Your task to perform on an android device: manage bookmarks in the chrome app Image 0: 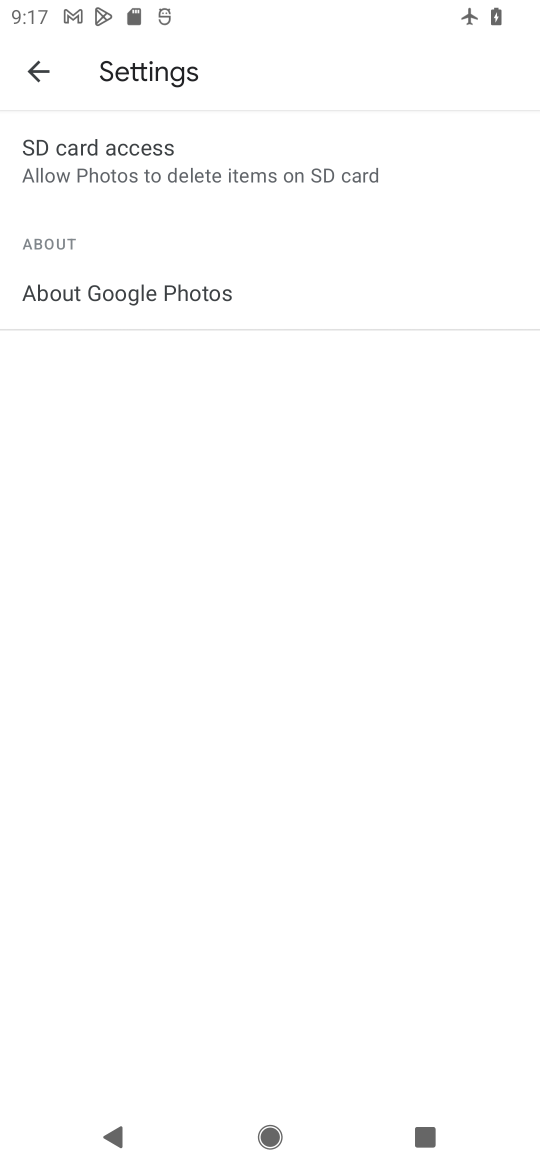
Step 0: press home button
Your task to perform on an android device: manage bookmarks in the chrome app Image 1: 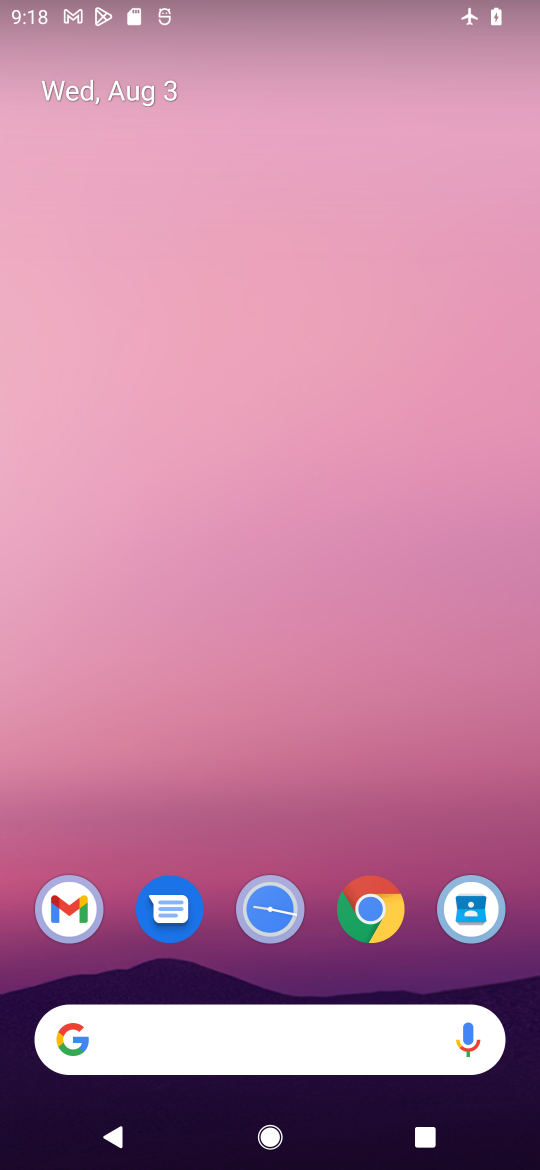
Step 1: drag from (305, 807) to (348, 389)
Your task to perform on an android device: manage bookmarks in the chrome app Image 2: 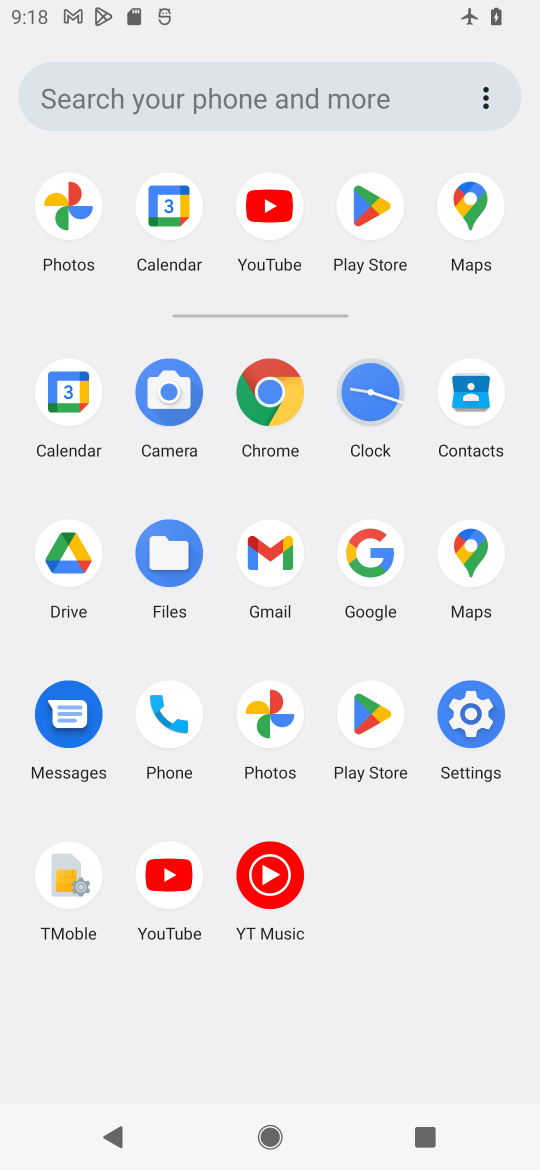
Step 2: click (282, 405)
Your task to perform on an android device: manage bookmarks in the chrome app Image 3: 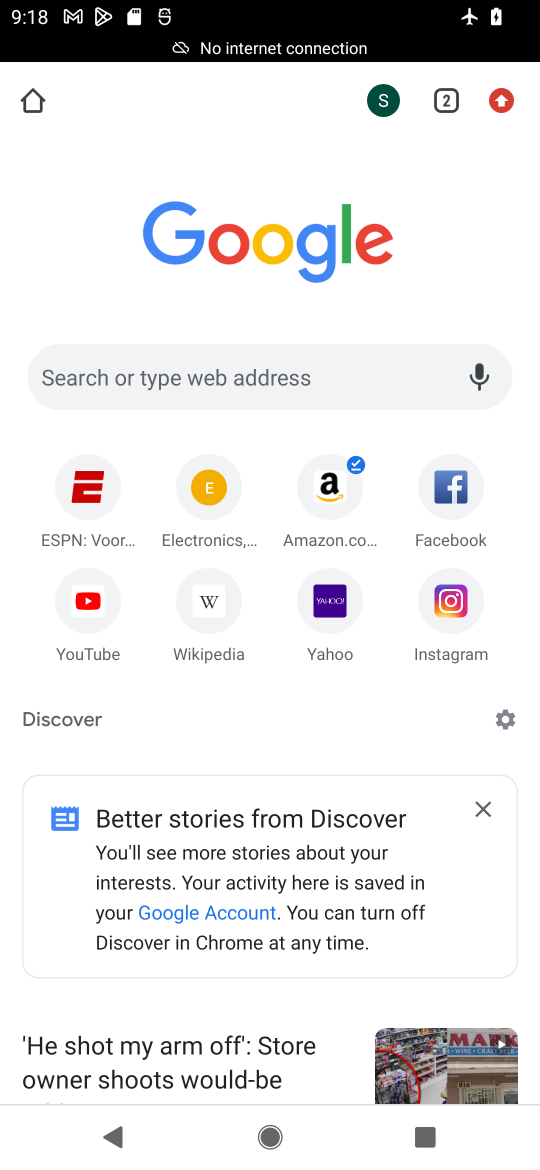
Step 3: click (503, 101)
Your task to perform on an android device: manage bookmarks in the chrome app Image 4: 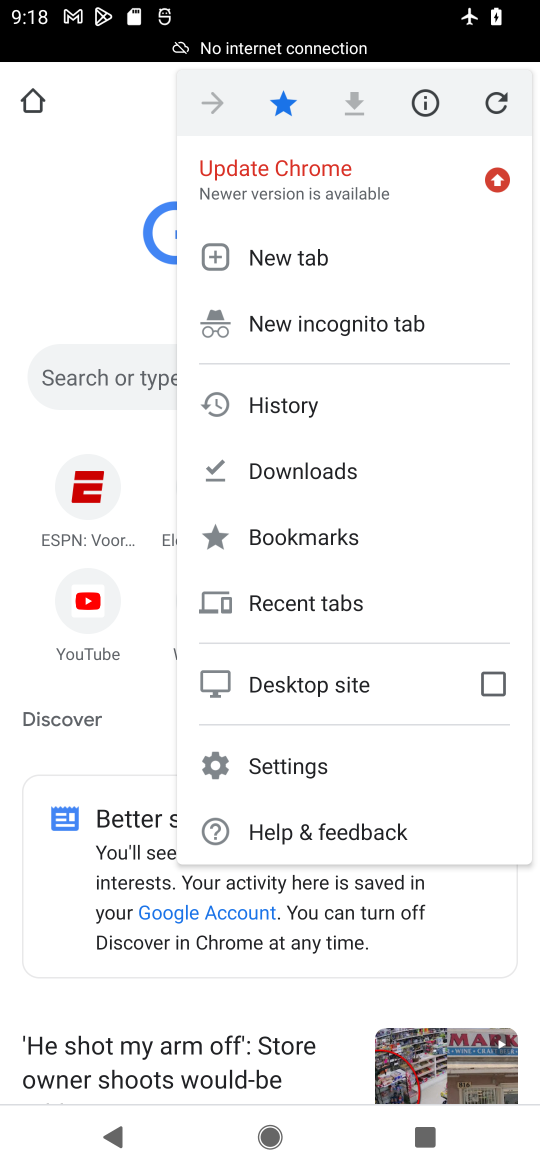
Step 4: click (322, 538)
Your task to perform on an android device: manage bookmarks in the chrome app Image 5: 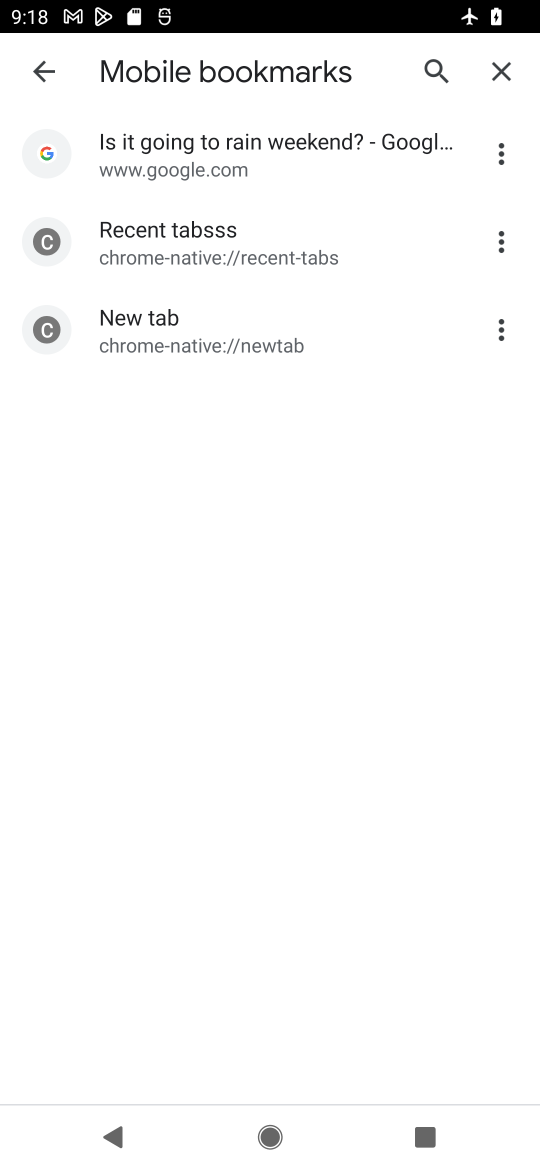
Step 5: click (505, 242)
Your task to perform on an android device: manage bookmarks in the chrome app Image 6: 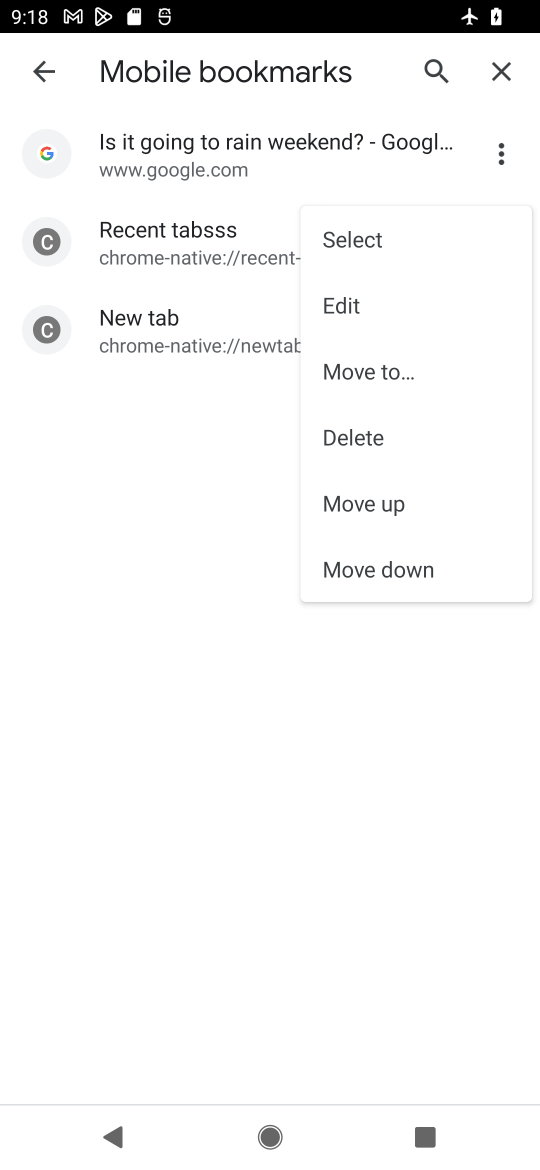
Step 6: click (363, 310)
Your task to perform on an android device: manage bookmarks in the chrome app Image 7: 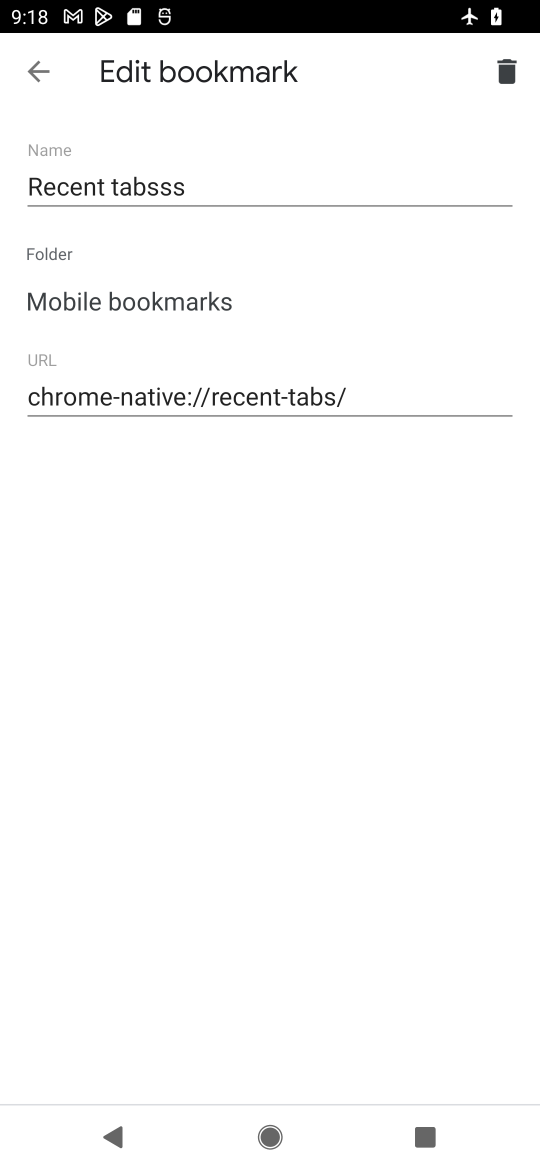
Step 7: click (253, 179)
Your task to perform on an android device: manage bookmarks in the chrome app Image 8: 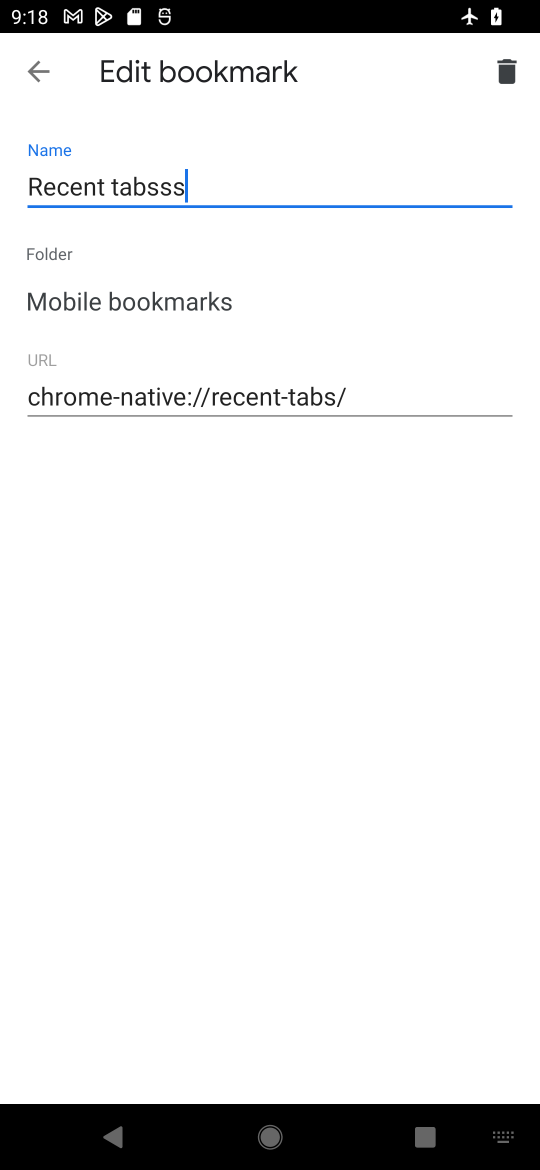
Step 8: type "s"
Your task to perform on an android device: manage bookmarks in the chrome app Image 9: 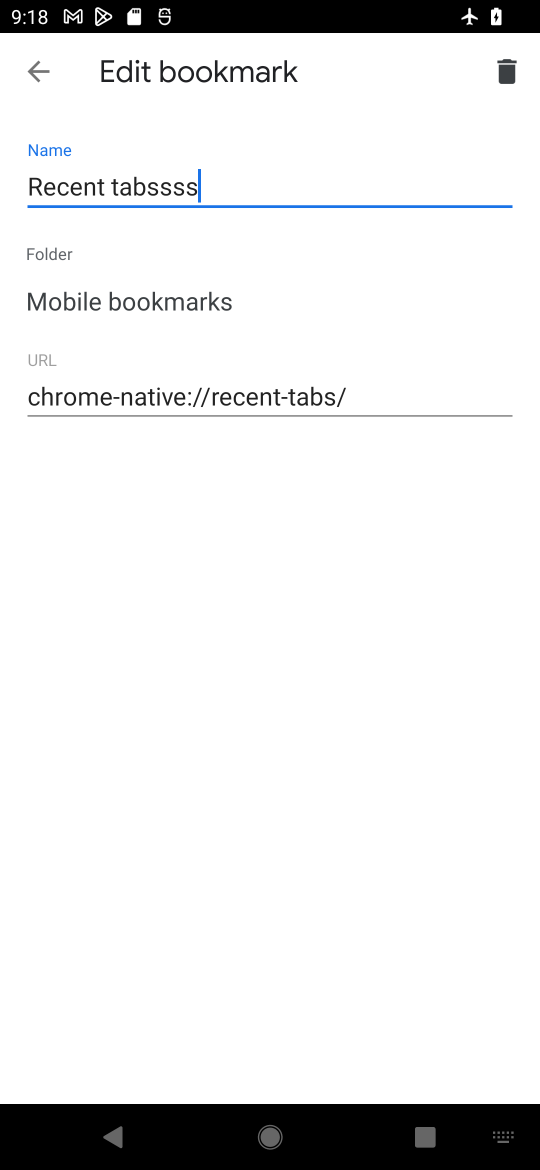
Step 9: click (45, 74)
Your task to perform on an android device: manage bookmarks in the chrome app Image 10: 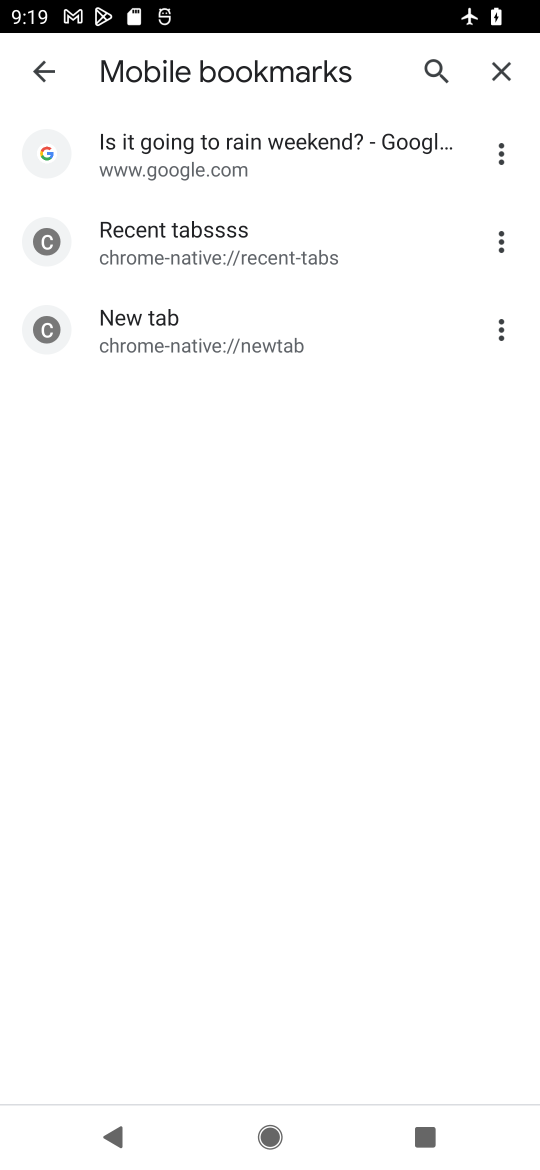
Step 10: task complete